Your task to perform on an android device: Open calendar and show me the fourth week of next month Image 0: 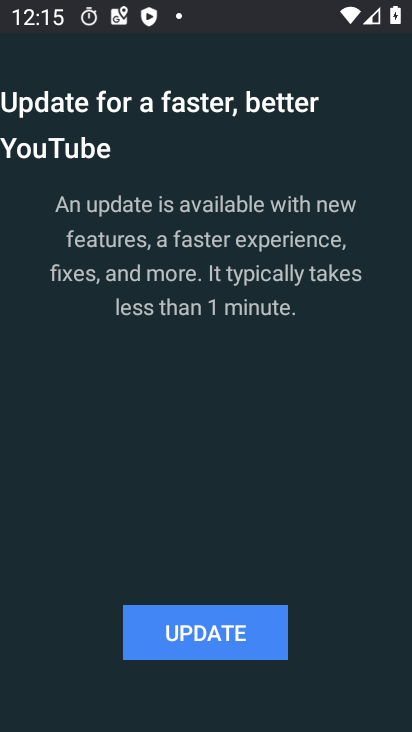
Step 0: press home button
Your task to perform on an android device: Open calendar and show me the fourth week of next month Image 1: 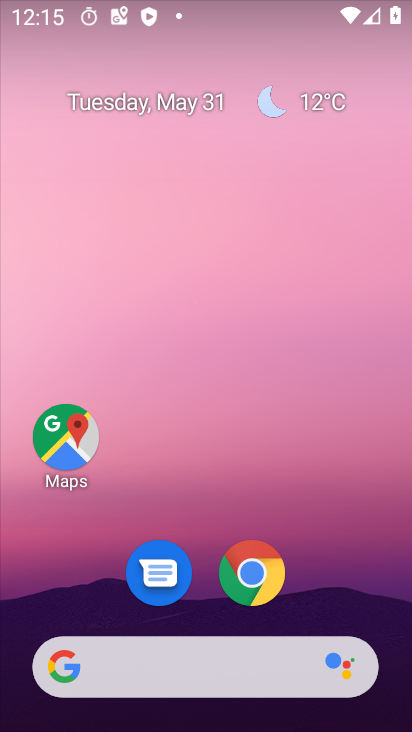
Step 1: drag from (364, 552) to (396, 183)
Your task to perform on an android device: Open calendar and show me the fourth week of next month Image 2: 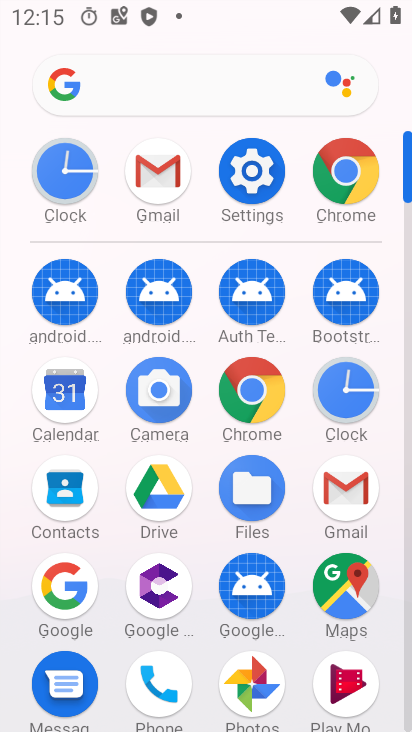
Step 2: click (48, 416)
Your task to perform on an android device: Open calendar and show me the fourth week of next month Image 3: 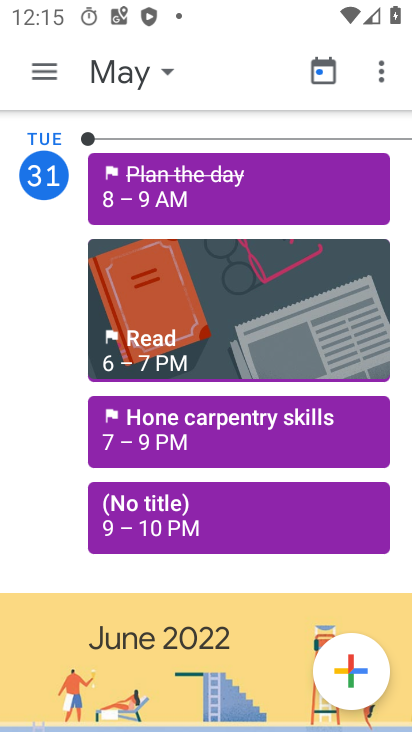
Step 3: click (126, 74)
Your task to perform on an android device: Open calendar and show me the fourth week of next month Image 4: 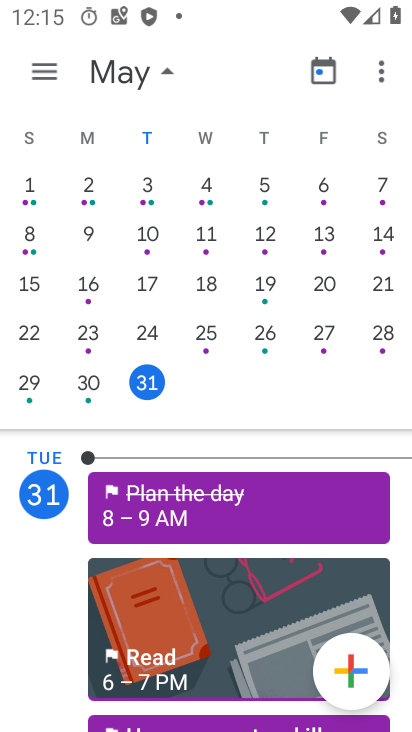
Step 4: drag from (339, 237) to (0, 303)
Your task to perform on an android device: Open calendar and show me the fourth week of next month Image 5: 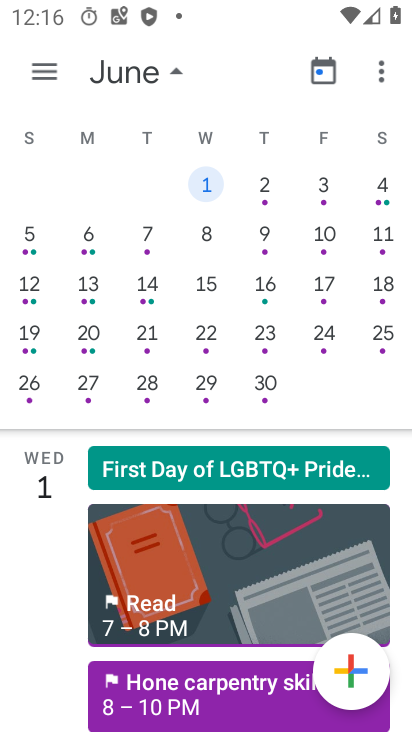
Step 5: click (157, 390)
Your task to perform on an android device: Open calendar and show me the fourth week of next month Image 6: 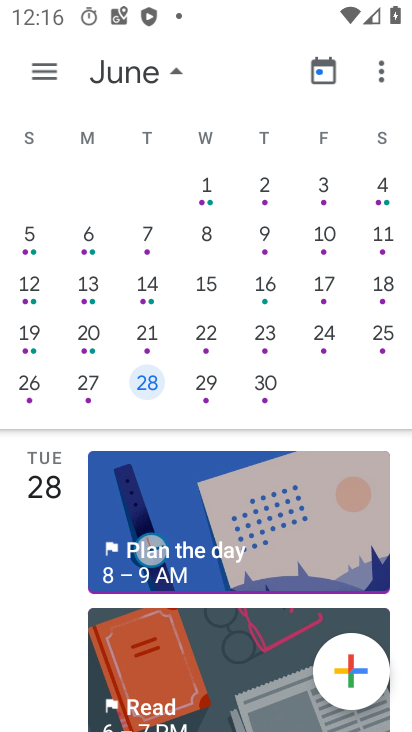
Step 6: task complete